Your task to perform on an android device: open wifi settings Image 0: 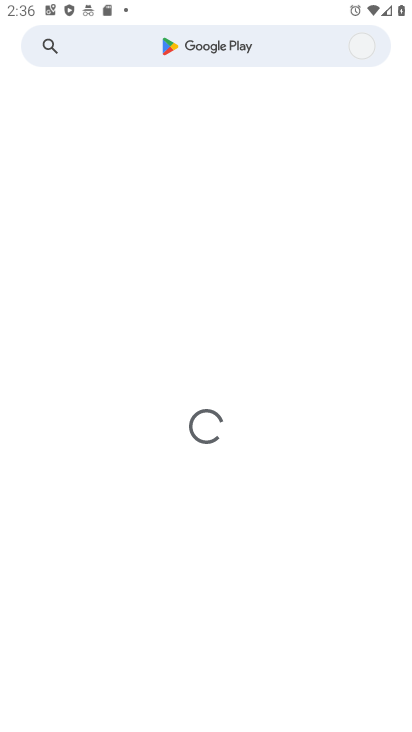
Step 0: press back button
Your task to perform on an android device: open wifi settings Image 1: 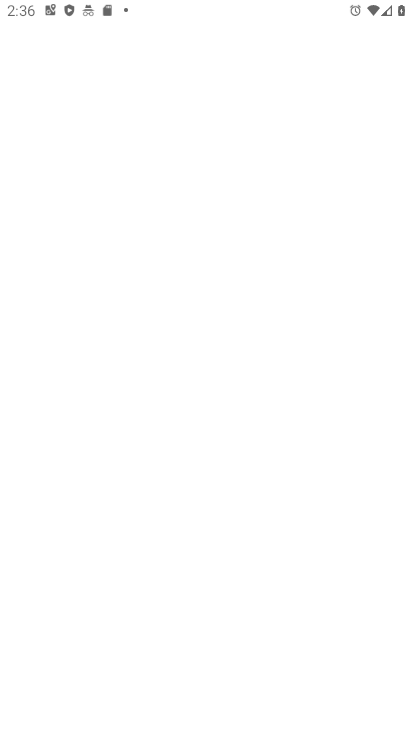
Step 1: press back button
Your task to perform on an android device: open wifi settings Image 2: 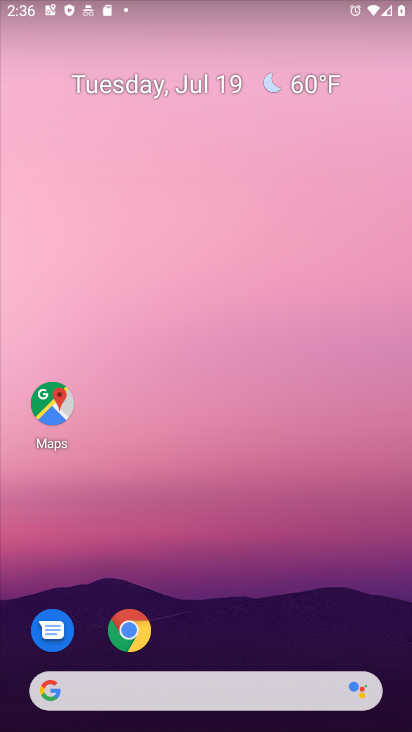
Step 2: press home button
Your task to perform on an android device: open wifi settings Image 3: 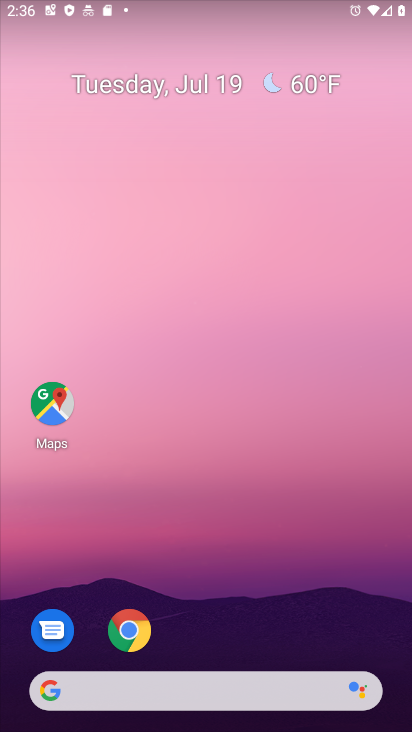
Step 3: drag from (254, 523) to (222, 130)
Your task to perform on an android device: open wifi settings Image 4: 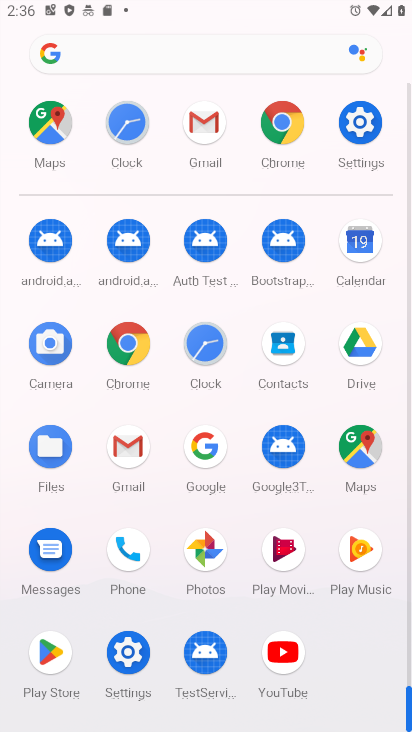
Step 4: click (361, 134)
Your task to perform on an android device: open wifi settings Image 5: 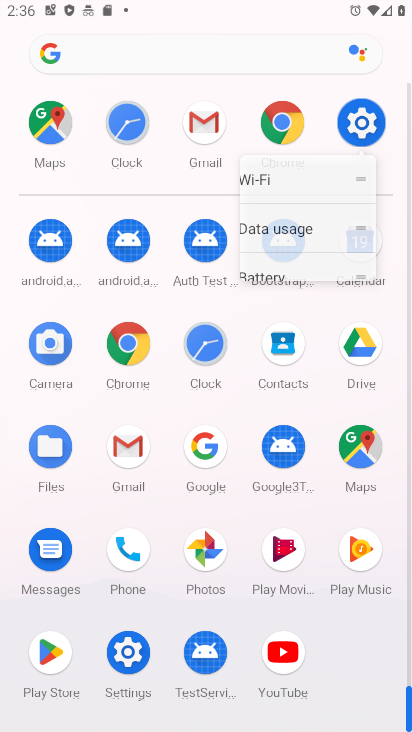
Step 5: click (365, 127)
Your task to perform on an android device: open wifi settings Image 6: 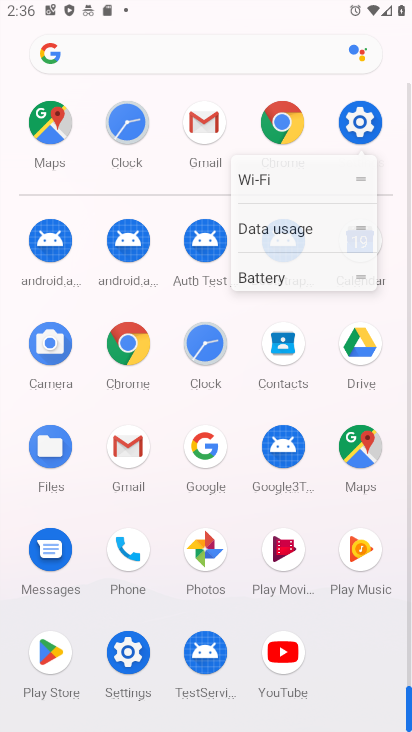
Step 6: click (369, 127)
Your task to perform on an android device: open wifi settings Image 7: 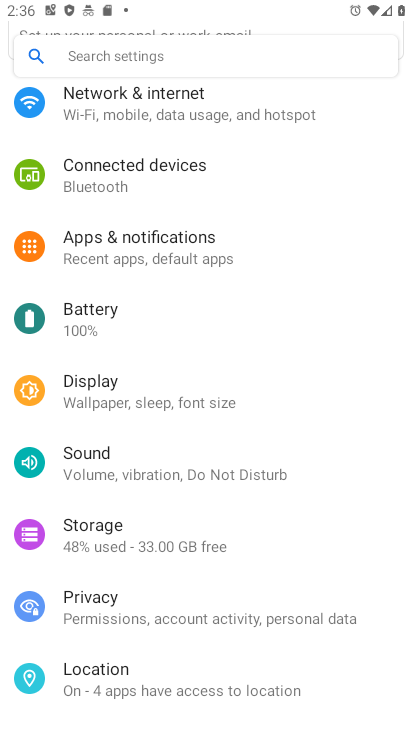
Step 7: click (129, 113)
Your task to perform on an android device: open wifi settings Image 8: 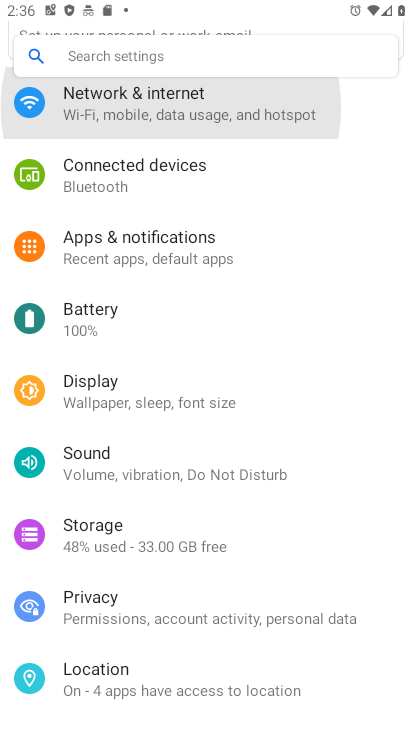
Step 8: click (130, 112)
Your task to perform on an android device: open wifi settings Image 9: 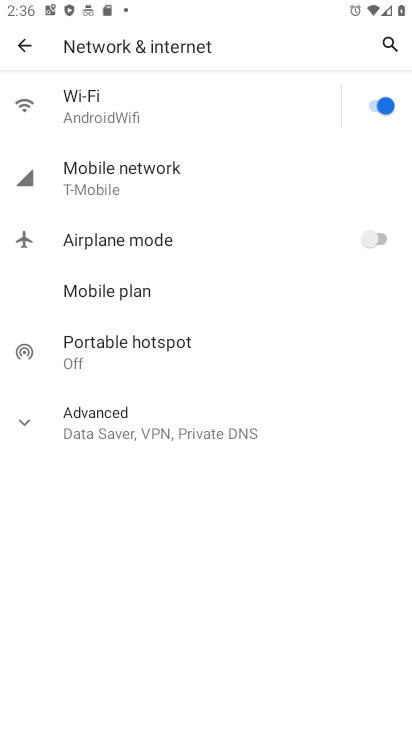
Step 9: task complete